Your task to perform on an android device: Find coffee shops on Maps Image 0: 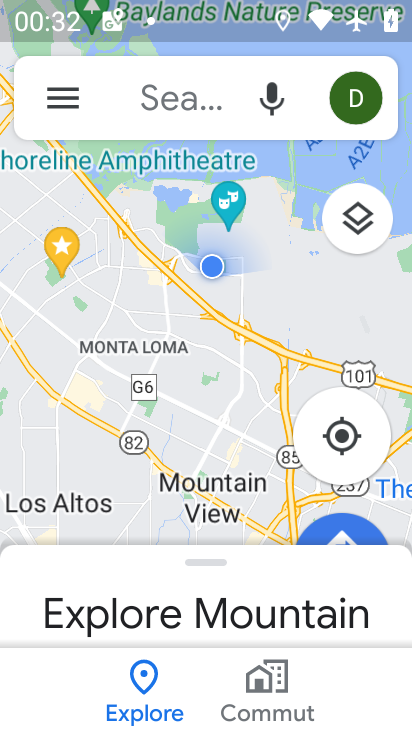
Step 0: click (165, 92)
Your task to perform on an android device: Find coffee shops on Maps Image 1: 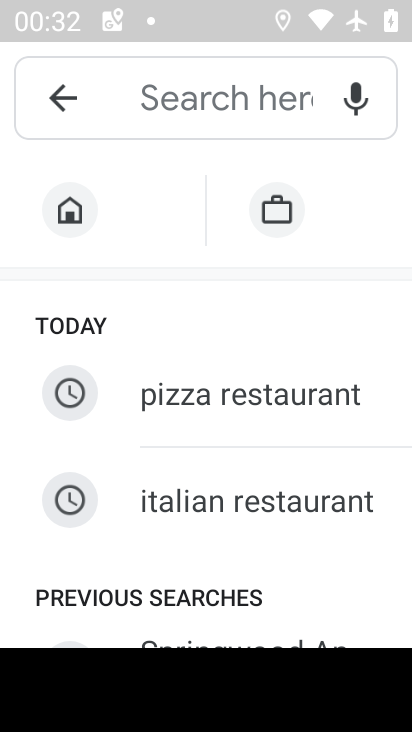
Step 1: type "coffee shop"
Your task to perform on an android device: Find coffee shops on Maps Image 2: 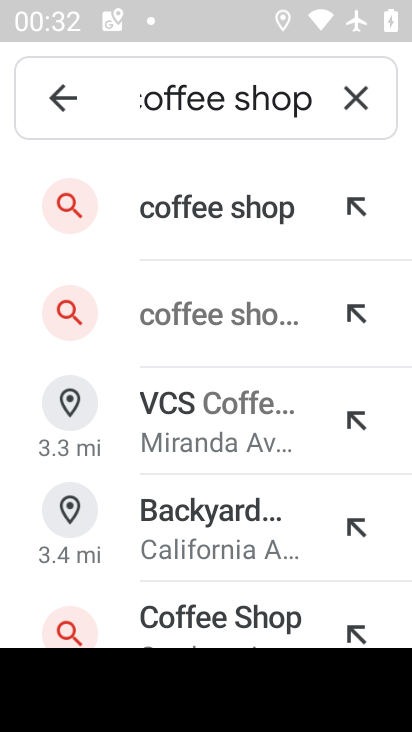
Step 2: click (207, 218)
Your task to perform on an android device: Find coffee shops on Maps Image 3: 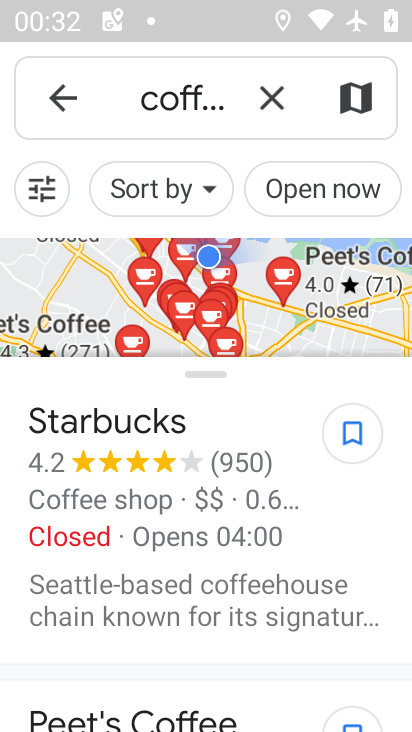
Step 3: task complete